Your task to perform on an android device: toggle javascript in the chrome app Image 0: 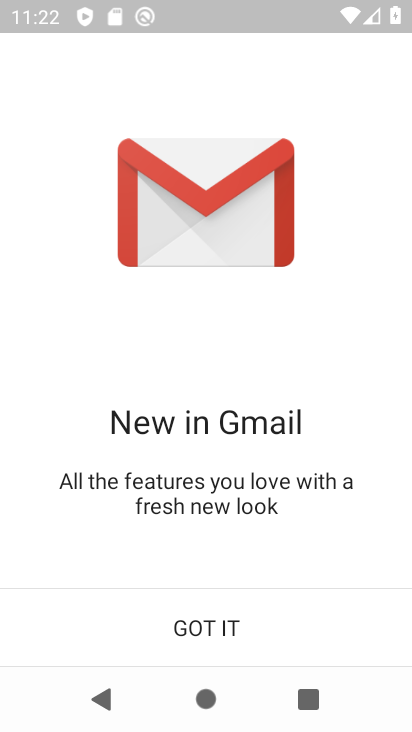
Step 0: press home button
Your task to perform on an android device: toggle javascript in the chrome app Image 1: 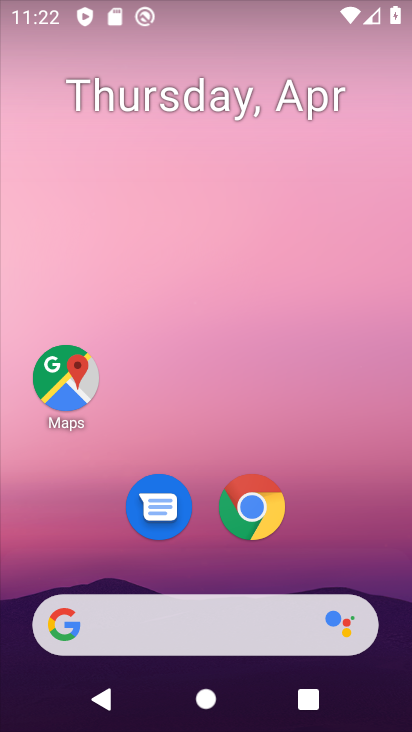
Step 1: click (249, 506)
Your task to perform on an android device: toggle javascript in the chrome app Image 2: 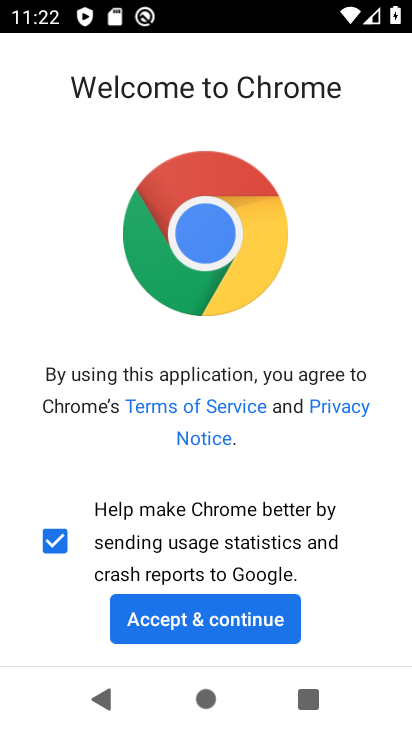
Step 2: click (255, 627)
Your task to perform on an android device: toggle javascript in the chrome app Image 3: 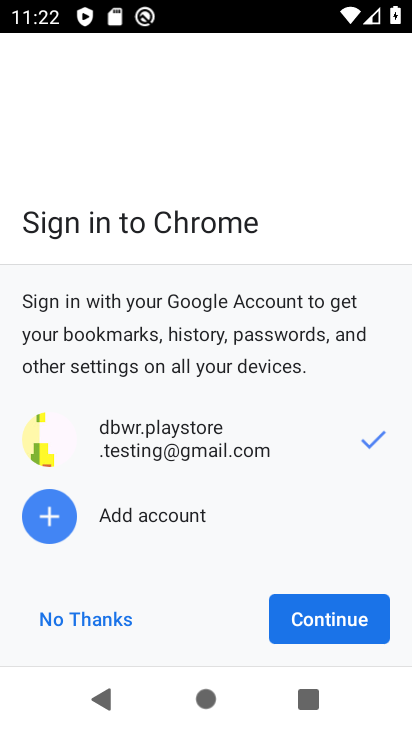
Step 3: click (342, 619)
Your task to perform on an android device: toggle javascript in the chrome app Image 4: 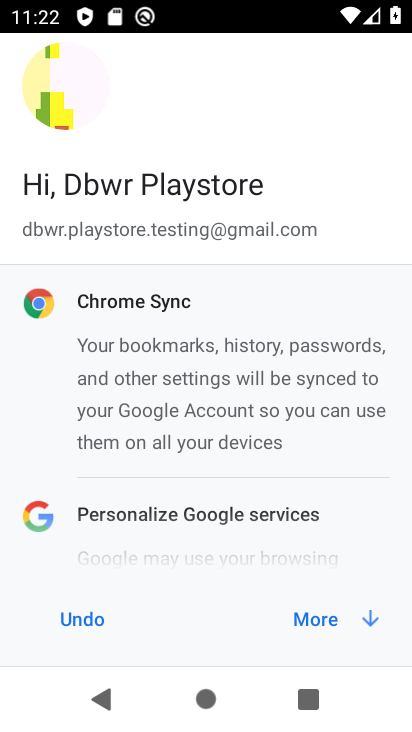
Step 4: click (323, 622)
Your task to perform on an android device: toggle javascript in the chrome app Image 5: 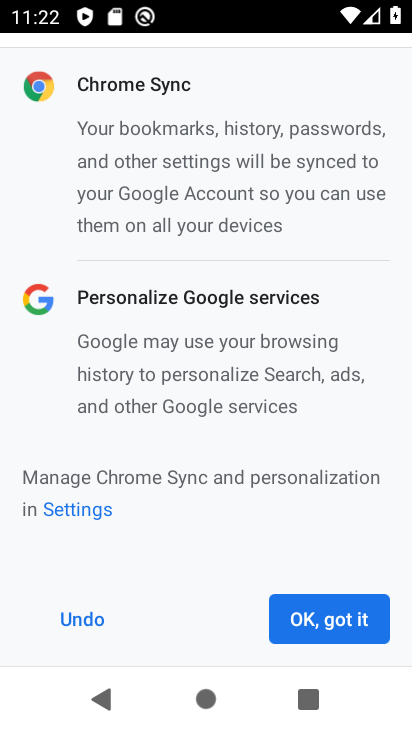
Step 5: click (319, 615)
Your task to perform on an android device: toggle javascript in the chrome app Image 6: 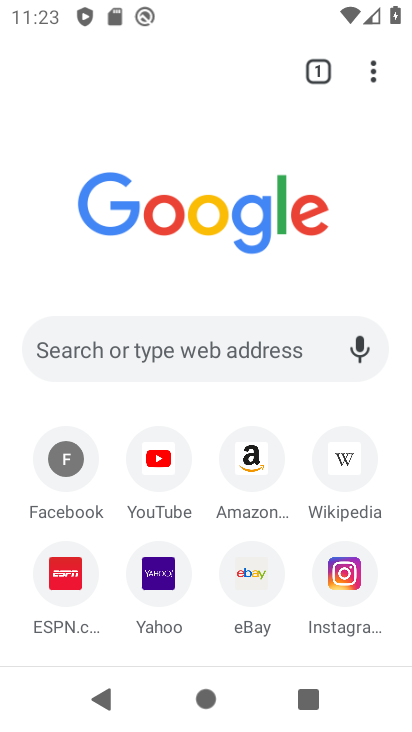
Step 6: drag from (373, 80) to (197, 496)
Your task to perform on an android device: toggle javascript in the chrome app Image 7: 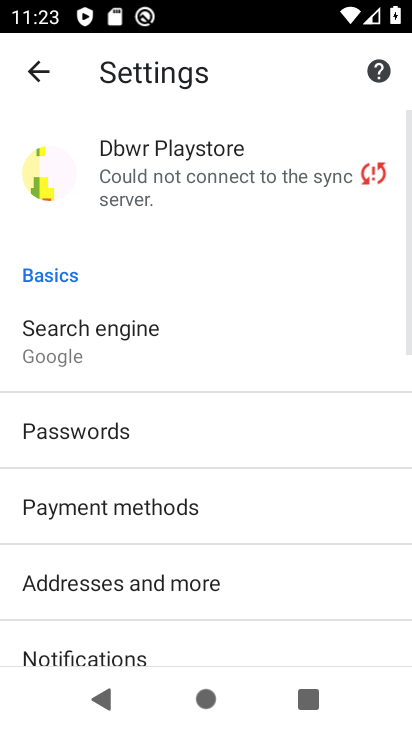
Step 7: drag from (203, 639) to (196, 341)
Your task to perform on an android device: toggle javascript in the chrome app Image 8: 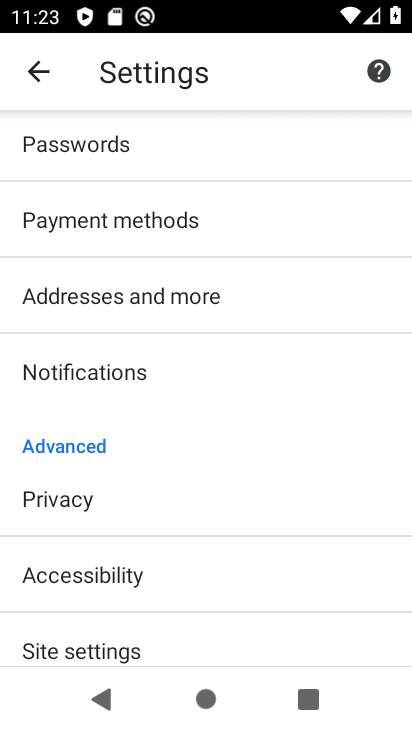
Step 8: drag from (184, 639) to (185, 331)
Your task to perform on an android device: toggle javascript in the chrome app Image 9: 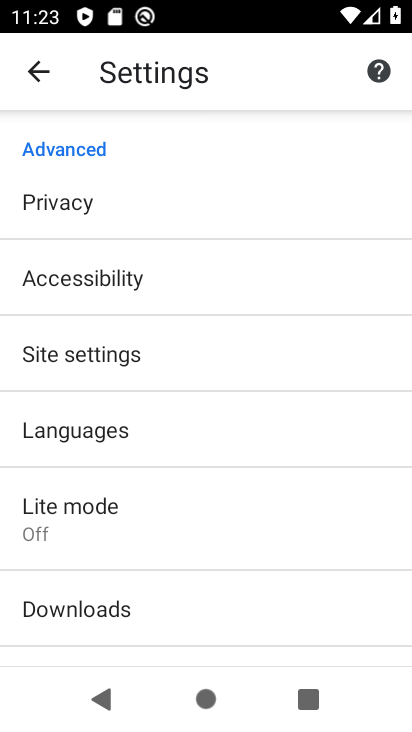
Step 9: click (75, 350)
Your task to perform on an android device: toggle javascript in the chrome app Image 10: 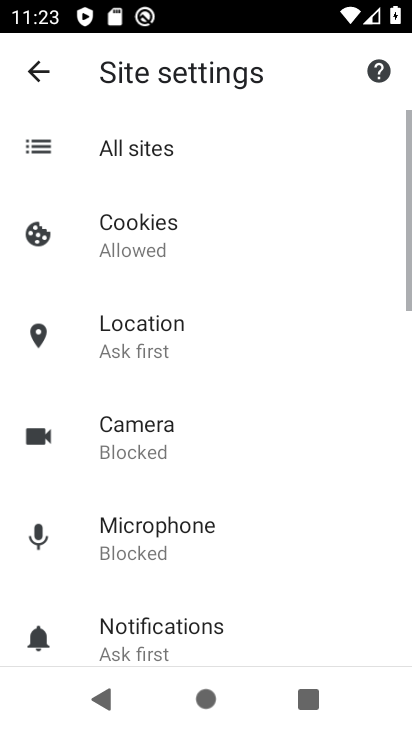
Step 10: drag from (172, 634) to (175, 263)
Your task to perform on an android device: toggle javascript in the chrome app Image 11: 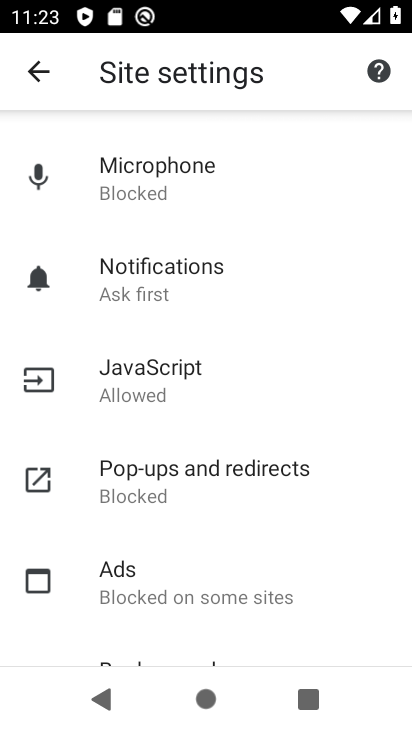
Step 11: click (135, 380)
Your task to perform on an android device: toggle javascript in the chrome app Image 12: 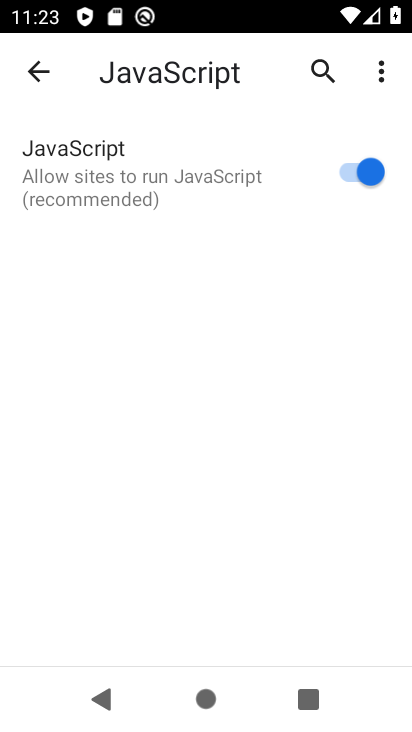
Step 12: click (348, 169)
Your task to perform on an android device: toggle javascript in the chrome app Image 13: 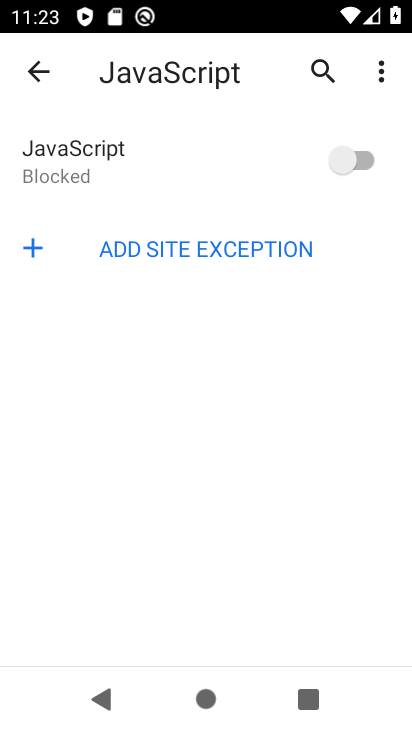
Step 13: task complete